Your task to perform on an android device: Search for Italian restaurants on Maps Image 0: 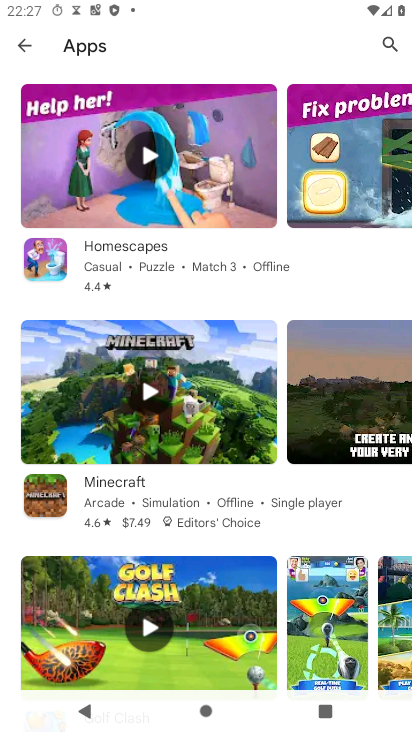
Step 0: press home button
Your task to perform on an android device: Search for Italian restaurants on Maps Image 1: 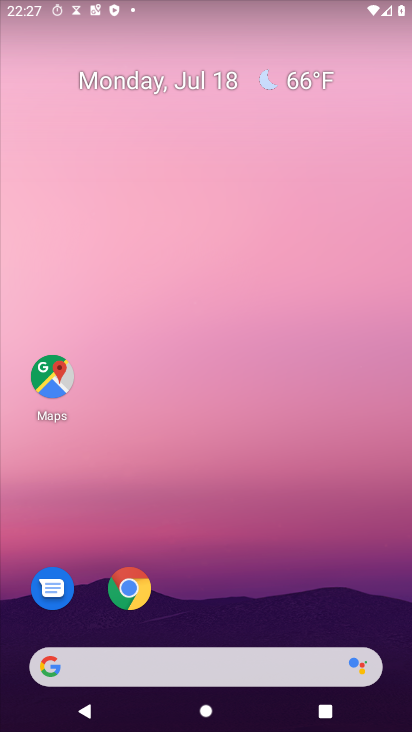
Step 1: click (54, 375)
Your task to perform on an android device: Search for Italian restaurants on Maps Image 2: 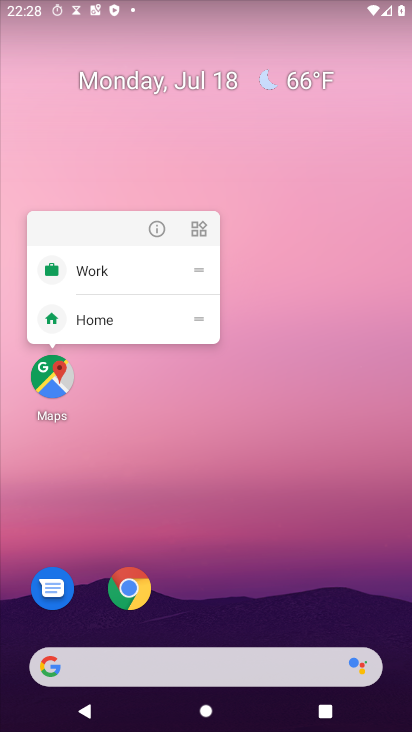
Step 2: click (50, 378)
Your task to perform on an android device: Search for Italian restaurants on Maps Image 3: 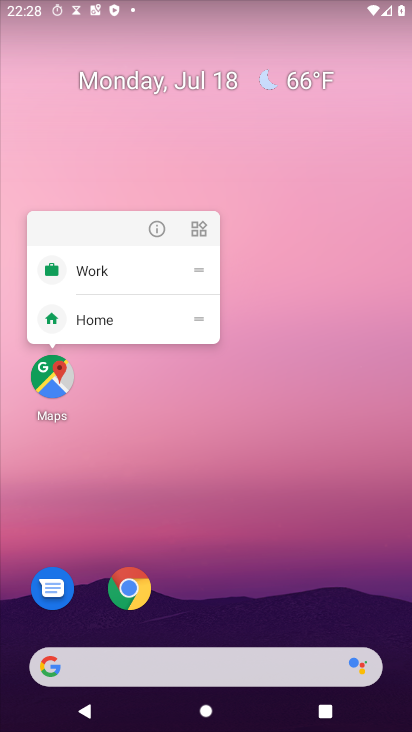
Step 3: click (50, 378)
Your task to perform on an android device: Search for Italian restaurants on Maps Image 4: 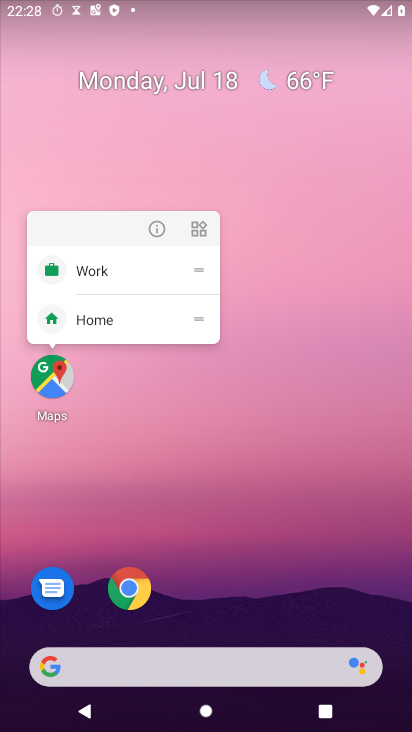
Step 4: click (50, 378)
Your task to perform on an android device: Search for Italian restaurants on Maps Image 5: 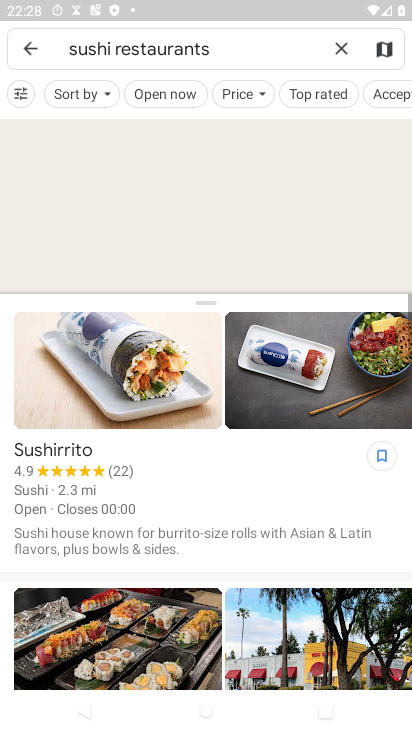
Step 5: click (342, 46)
Your task to perform on an android device: Search for Italian restaurants on Maps Image 6: 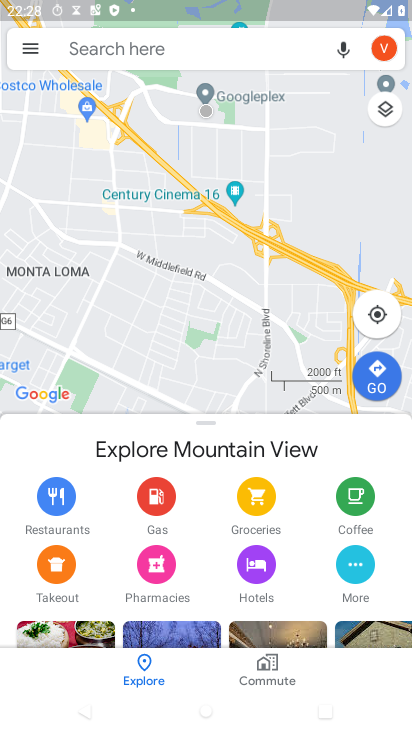
Step 6: click (199, 34)
Your task to perform on an android device: Search for Italian restaurants on Maps Image 7: 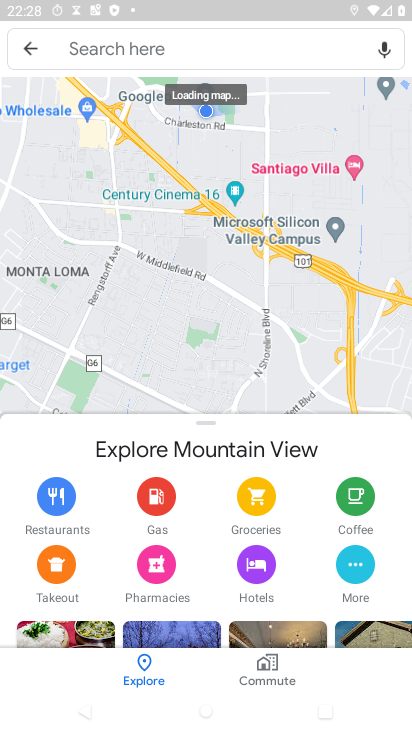
Step 7: click (189, 35)
Your task to perform on an android device: Search for Italian restaurants on Maps Image 8: 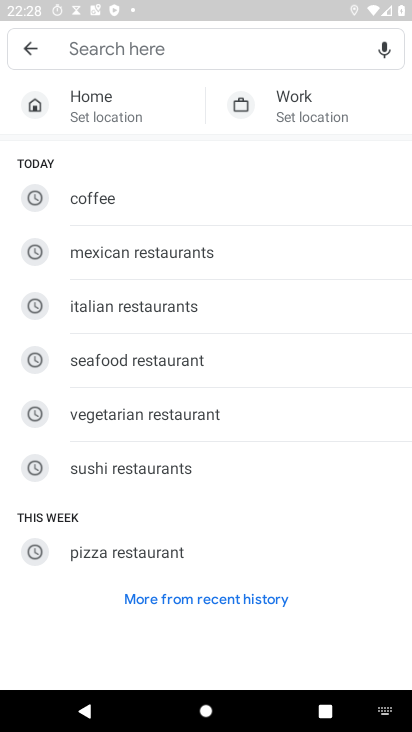
Step 8: click (165, 305)
Your task to perform on an android device: Search for Italian restaurants on Maps Image 9: 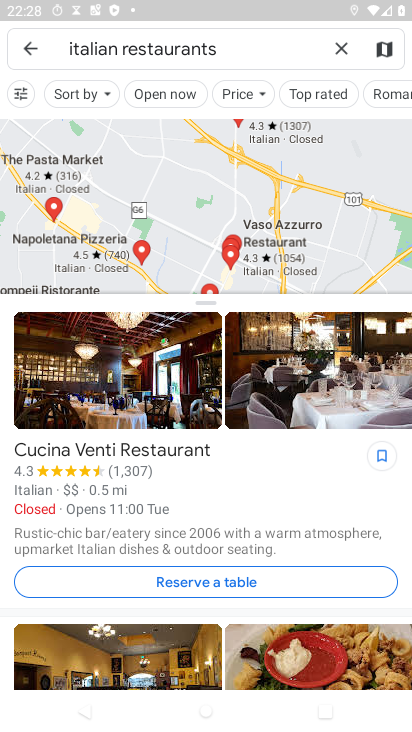
Step 9: task complete